Your task to perform on an android device: Open battery settings Image 0: 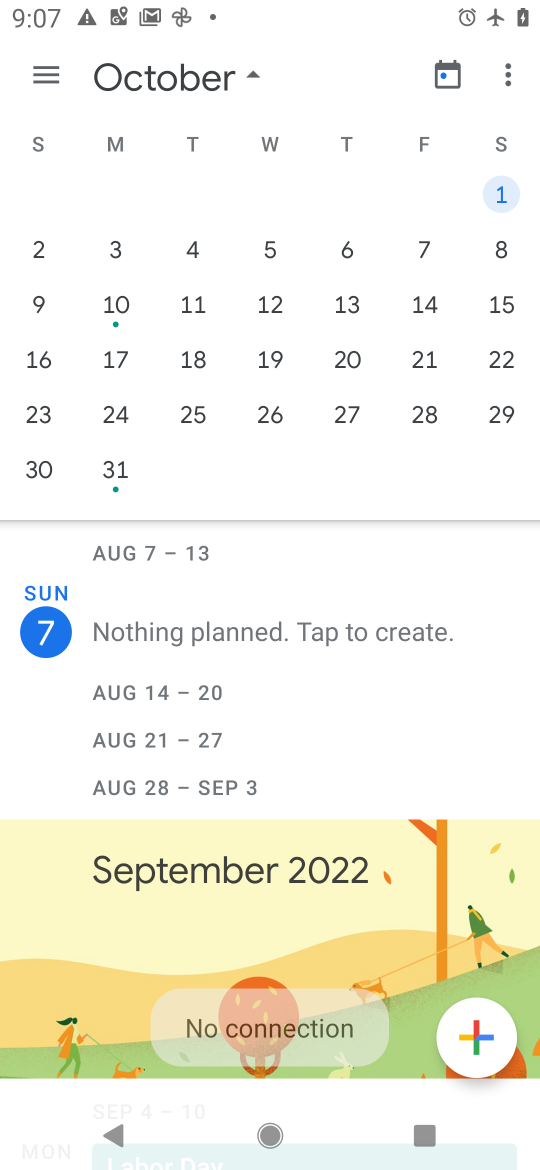
Step 0: press home button
Your task to perform on an android device: Open battery settings Image 1: 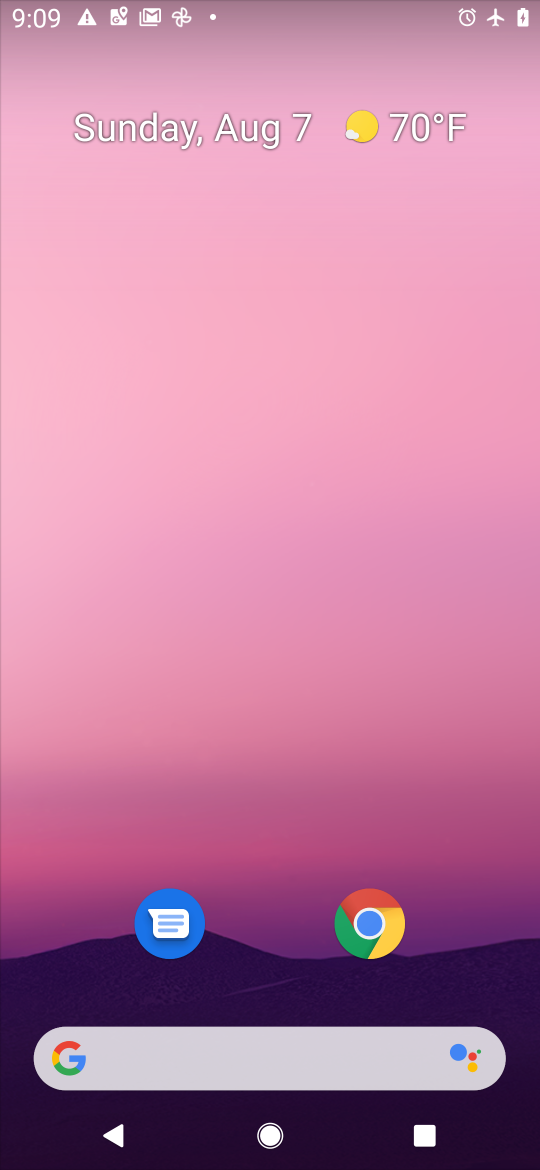
Step 1: drag from (483, 975) to (359, 8)
Your task to perform on an android device: Open battery settings Image 2: 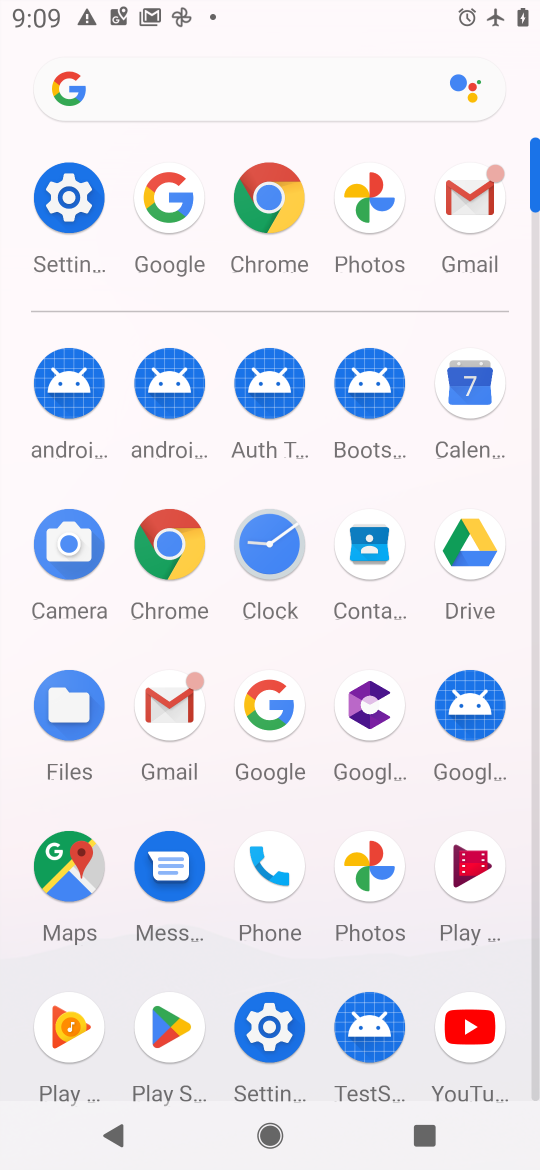
Step 2: click (274, 1039)
Your task to perform on an android device: Open battery settings Image 3: 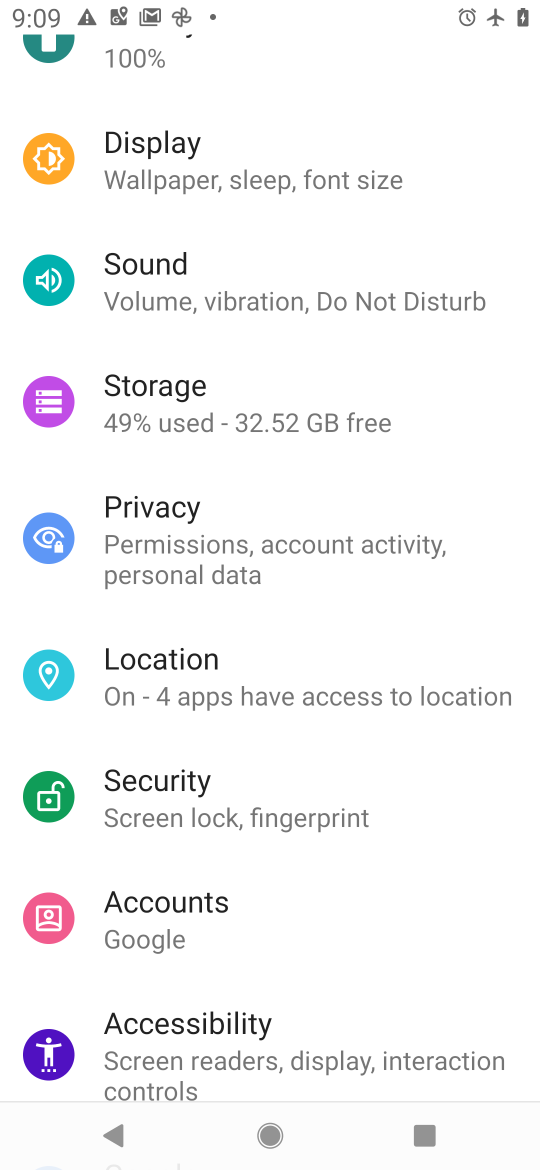
Step 3: click (143, 68)
Your task to perform on an android device: Open battery settings Image 4: 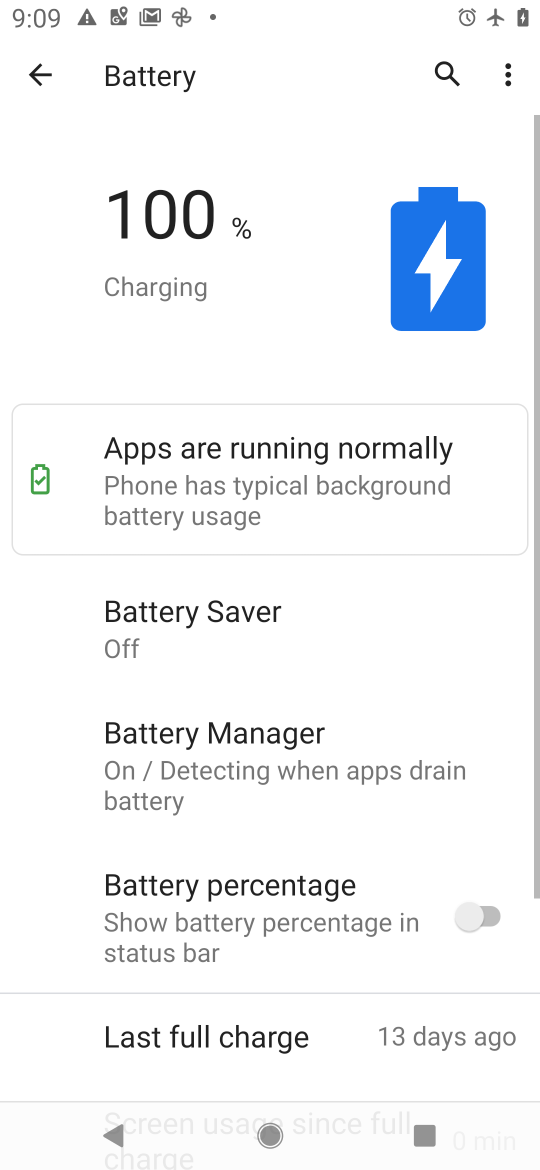
Step 4: task complete